Your task to perform on an android device: check data usage Image 0: 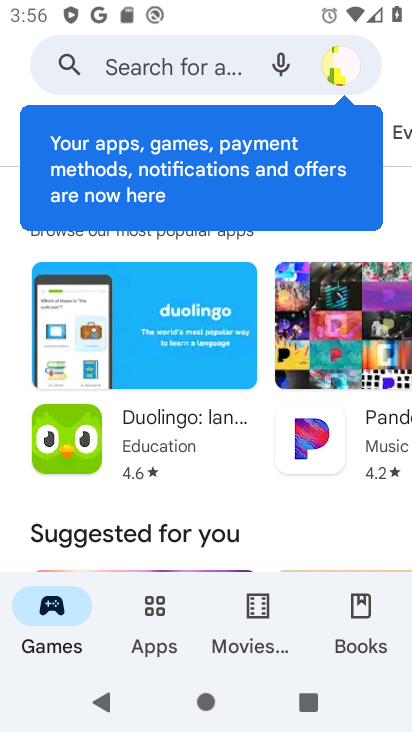
Step 0: press home button
Your task to perform on an android device: check data usage Image 1: 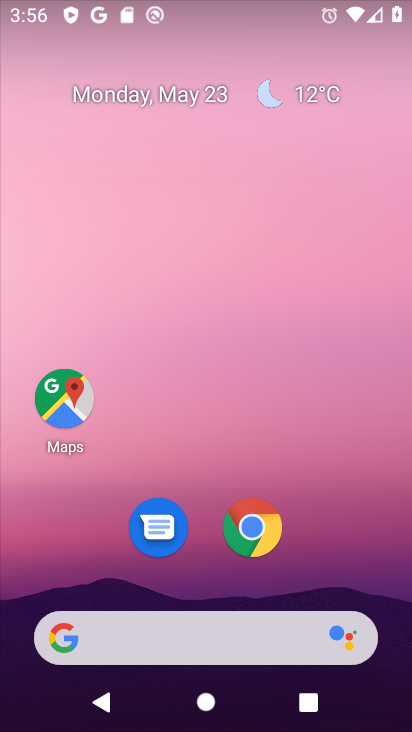
Step 1: drag from (207, 579) to (224, 0)
Your task to perform on an android device: check data usage Image 2: 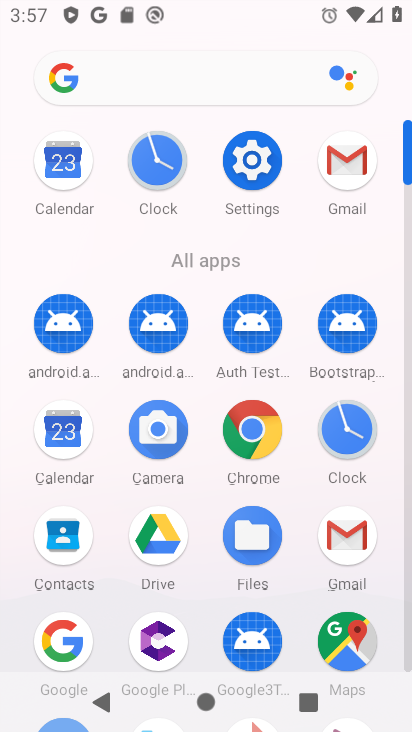
Step 2: click (250, 153)
Your task to perform on an android device: check data usage Image 3: 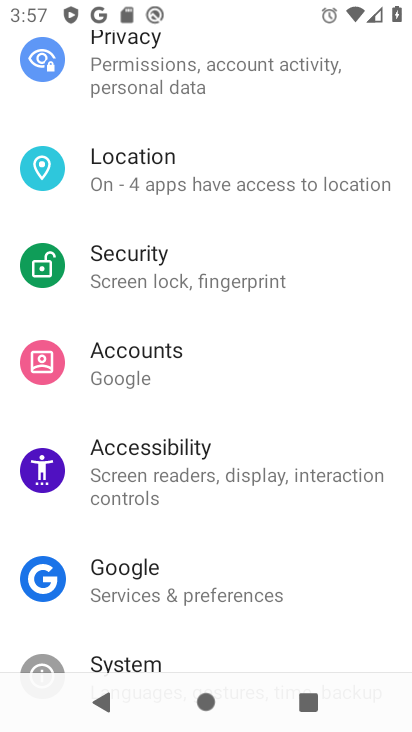
Step 3: drag from (199, 308) to (205, 679)
Your task to perform on an android device: check data usage Image 4: 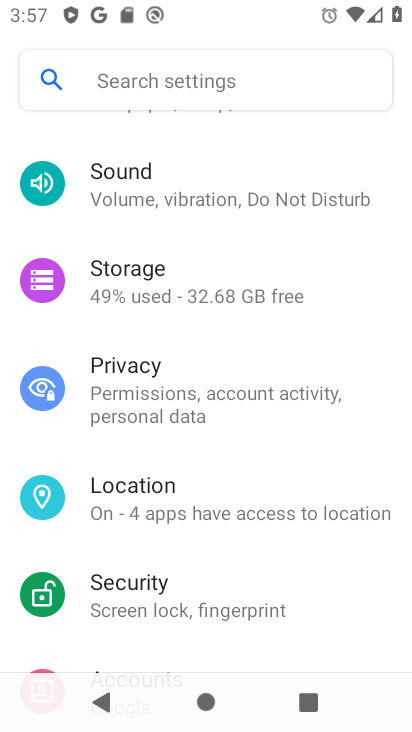
Step 4: drag from (153, 214) to (132, 675)
Your task to perform on an android device: check data usage Image 5: 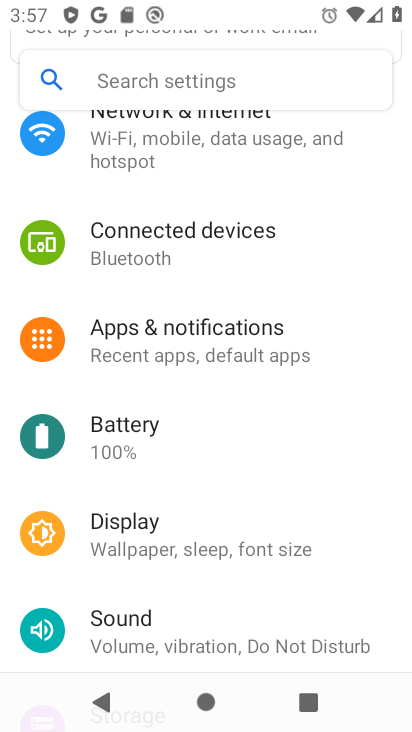
Step 5: click (181, 153)
Your task to perform on an android device: check data usage Image 6: 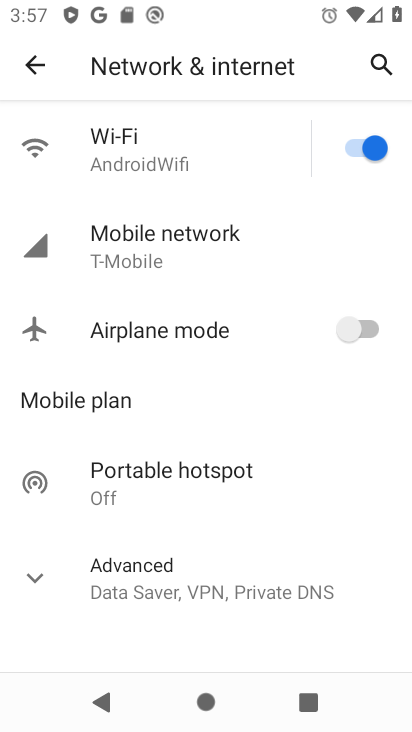
Step 6: click (187, 246)
Your task to perform on an android device: check data usage Image 7: 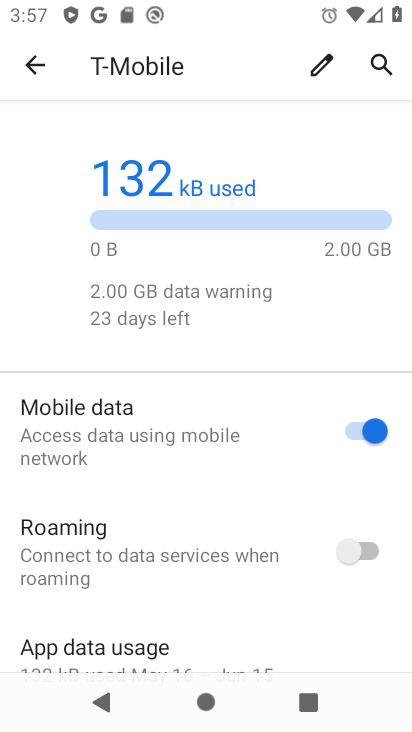
Step 7: click (184, 648)
Your task to perform on an android device: check data usage Image 8: 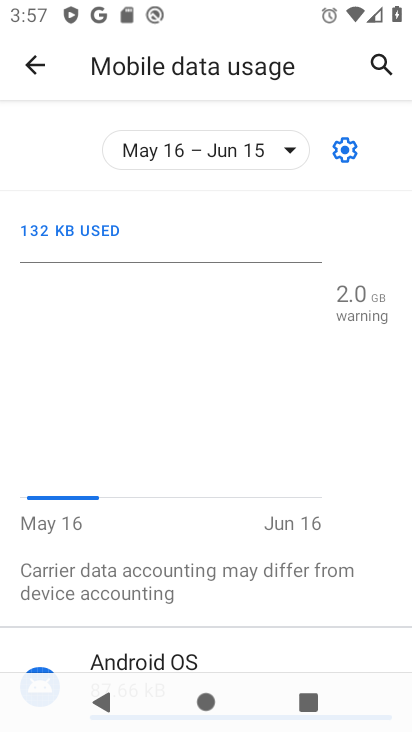
Step 8: task complete